Your task to perform on an android device: turn on the 24-hour format for clock Image 0: 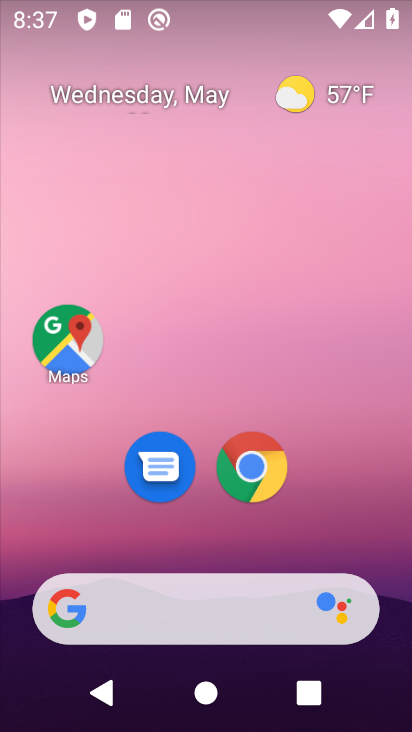
Step 0: drag from (394, 559) to (284, 211)
Your task to perform on an android device: turn on the 24-hour format for clock Image 1: 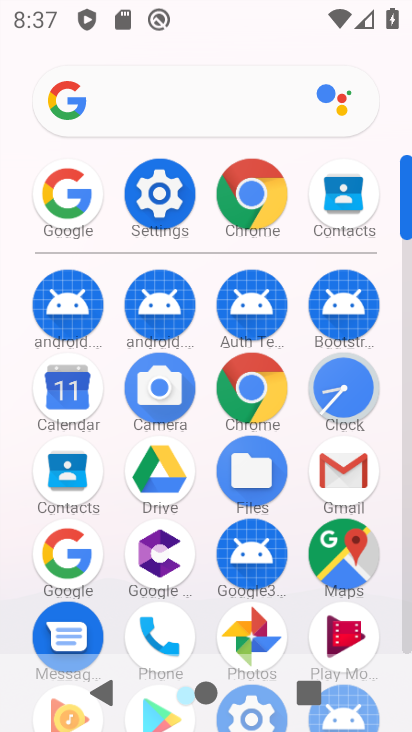
Step 1: click (332, 391)
Your task to perform on an android device: turn on the 24-hour format for clock Image 2: 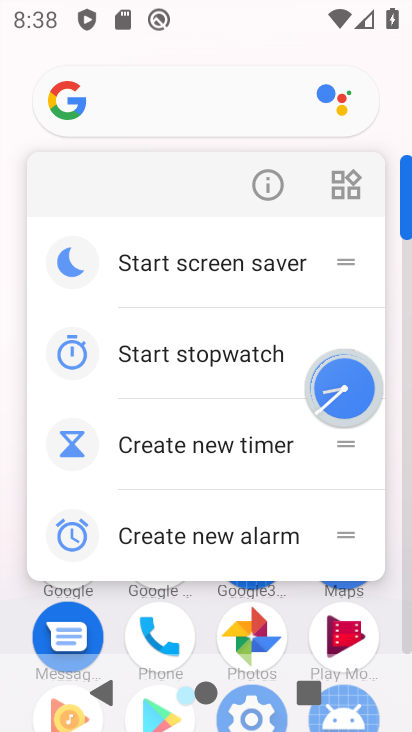
Step 2: click (339, 387)
Your task to perform on an android device: turn on the 24-hour format for clock Image 3: 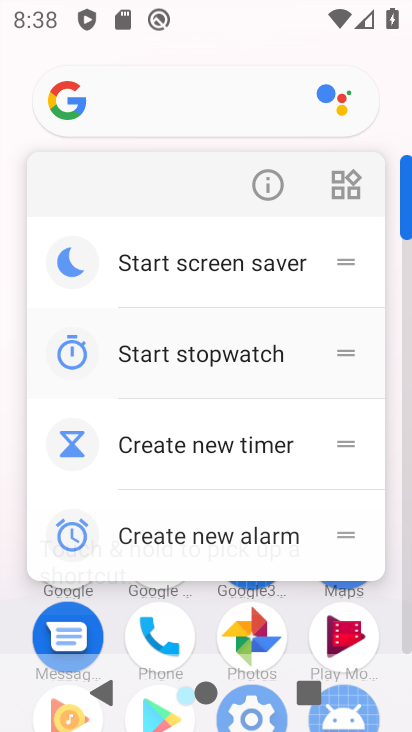
Step 3: click (339, 387)
Your task to perform on an android device: turn on the 24-hour format for clock Image 4: 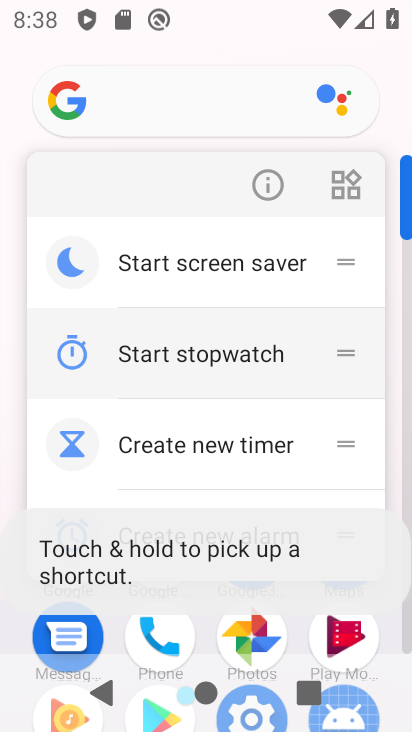
Step 4: click (339, 386)
Your task to perform on an android device: turn on the 24-hour format for clock Image 5: 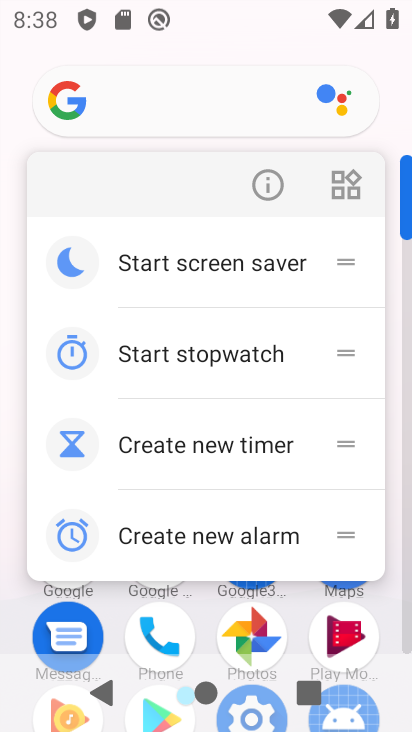
Step 5: click (204, 367)
Your task to perform on an android device: turn on the 24-hour format for clock Image 6: 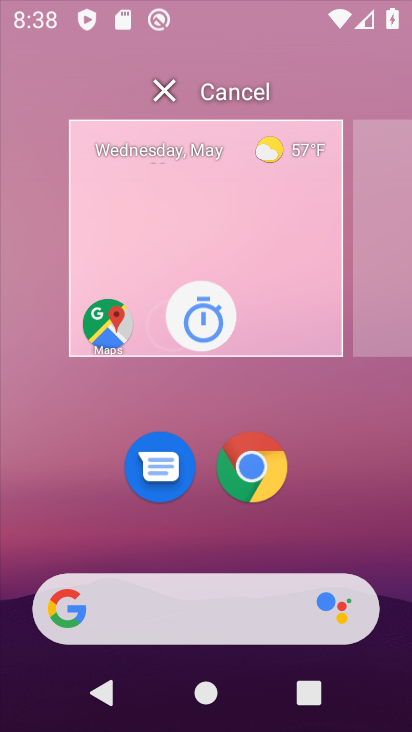
Step 6: click (200, 341)
Your task to perform on an android device: turn on the 24-hour format for clock Image 7: 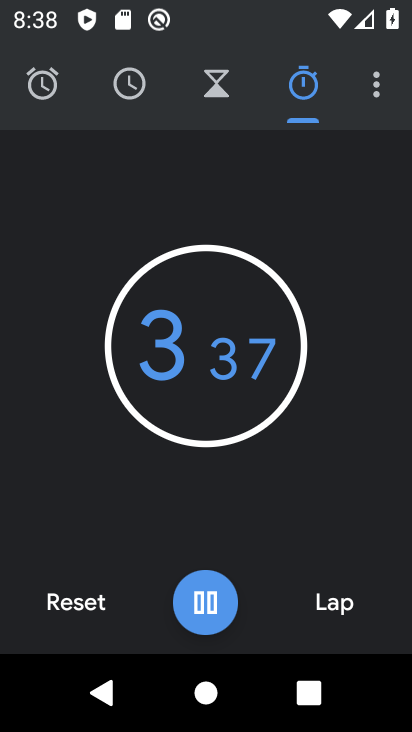
Step 7: click (208, 596)
Your task to perform on an android device: turn on the 24-hour format for clock Image 8: 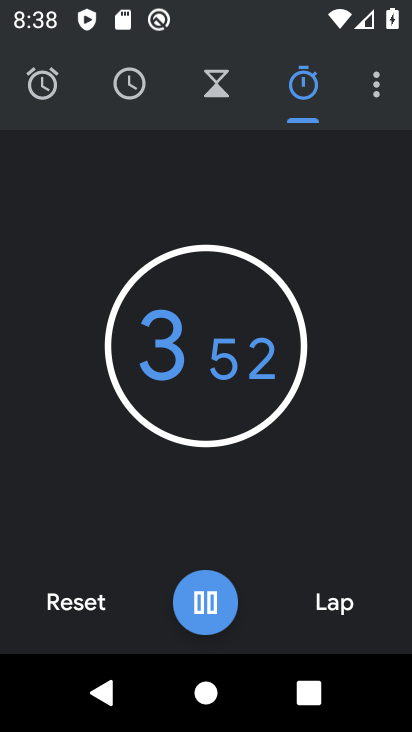
Step 8: click (209, 585)
Your task to perform on an android device: turn on the 24-hour format for clock Image 9: 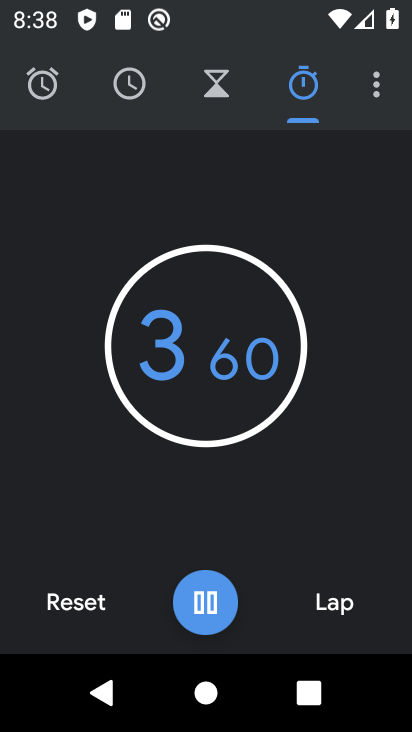
Step 9: click (209, 585)
Your task to perform on an android device: turn on the 24-hour format for clock Image 10: 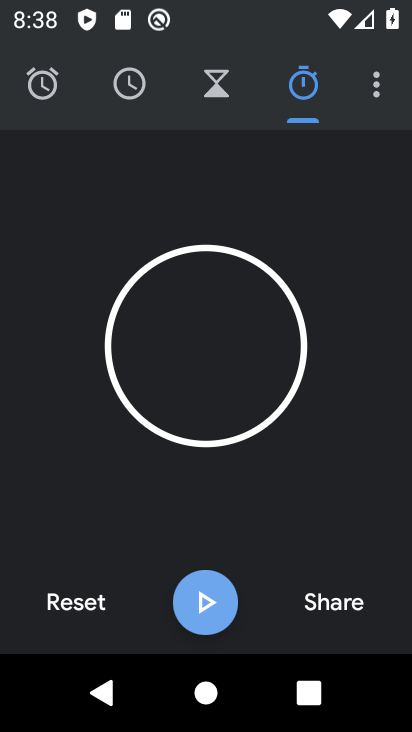
Step 10: click (198, 596)
Your task to perform on an android device: turn on the 24-hour format for clock Image 11: 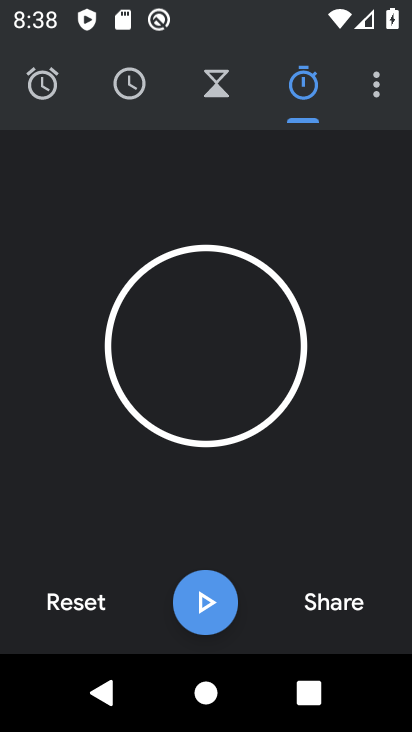
Step 11: click (203, 597)
Your task to perform on an android device: turn on the 24-hour format for clock Image 12: 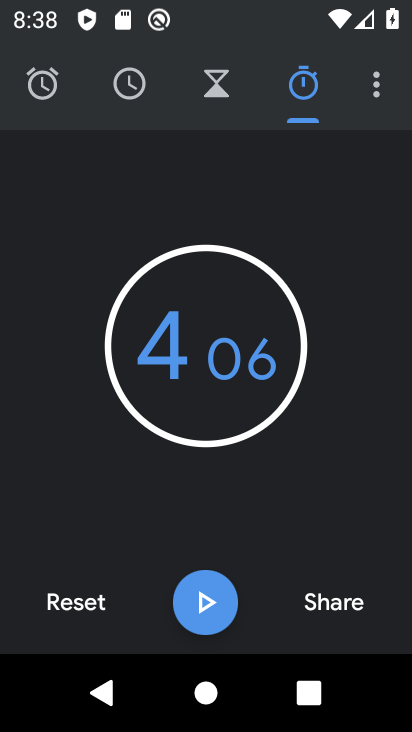
Step 12: click (370, 82)
Your task to perform on an android device: turn on the 24-hour format for clock Image 13: 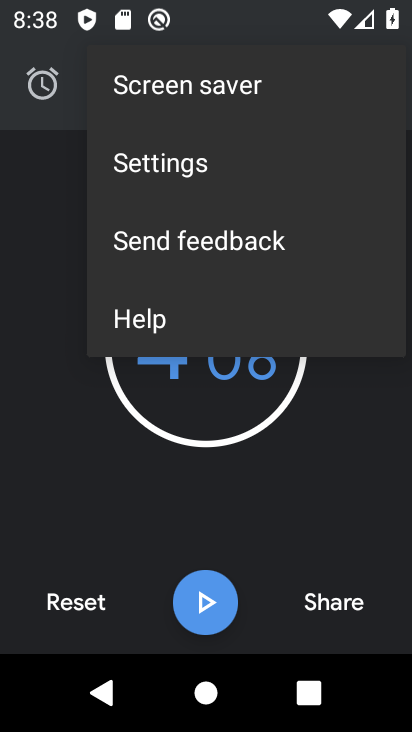
Step 13: click (167, 184)
Your task to perform on an android device: turn on the 24-hour format for clock Image 14: 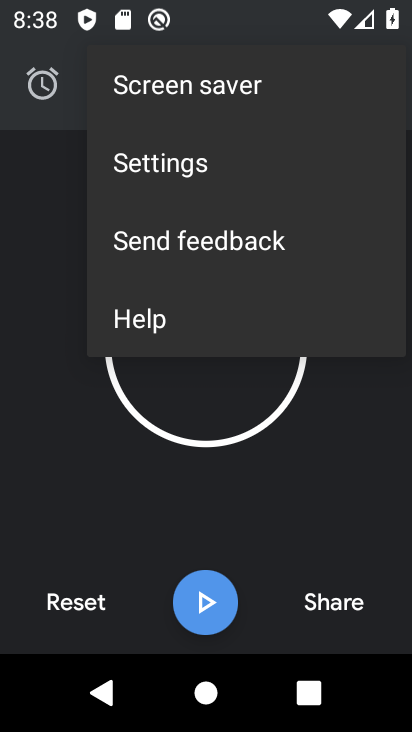
Step 14: click (162, 165)
Your task to perform on an android device: turn on the 24-hour format for clock Image 15: 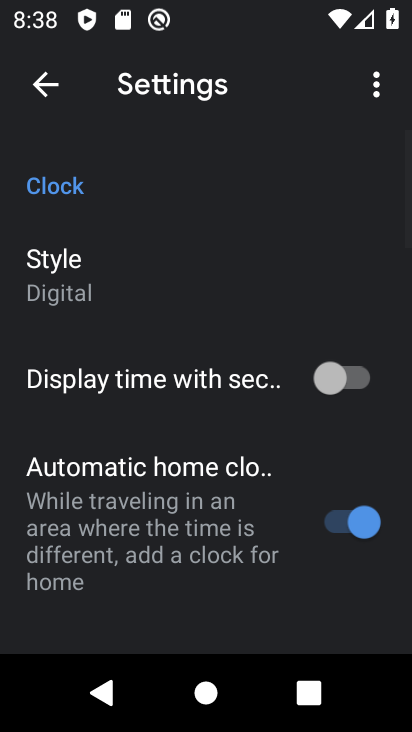
Step 15: drag from (224, 565) to (82, 115)
Your task to perform on an android device: turn on the 24-hour format for clock Image 16: 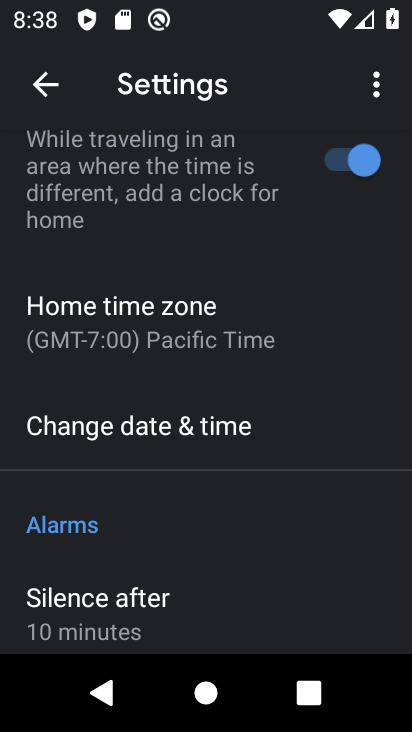
Step 16: click (175, 423)
Your task to perform on an android device: turn on the 24-hour format for clock Image 17: 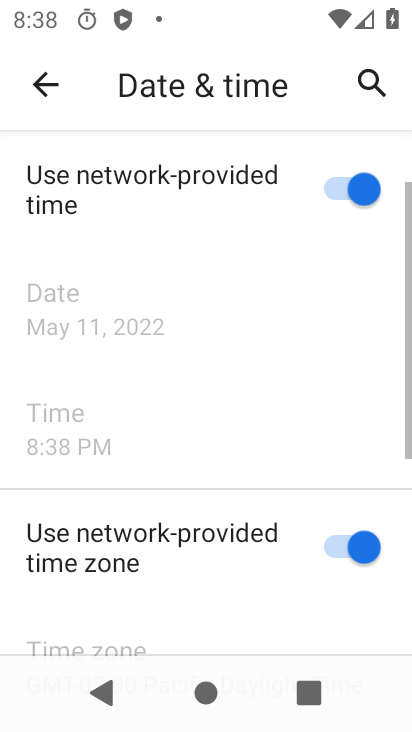
Step 17: drag from (233, 539) to (184, 240)
Your task to perform on an android device: turn on the 24-hour format for clock Image 18: 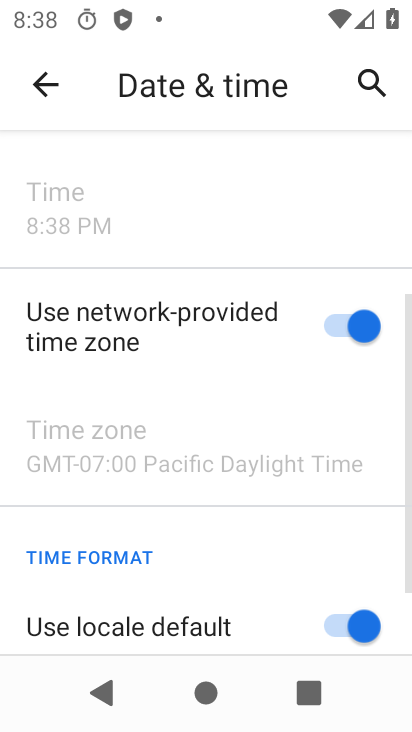
Step 18: drag from (269, 412) to (210, 201)
Your task to perform on an android device: turn on the 24-hour format for clock Image 19: 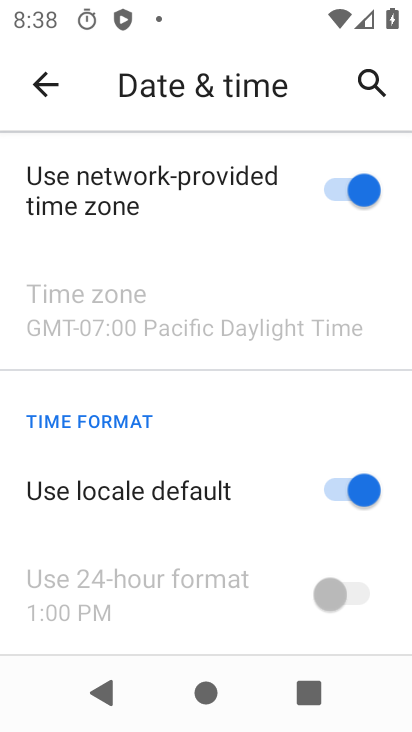
Step 19: drag from (262, 463) to (193, 168)
Your task to perform on an android device: turn on the 24-hour format for clock Image 20: 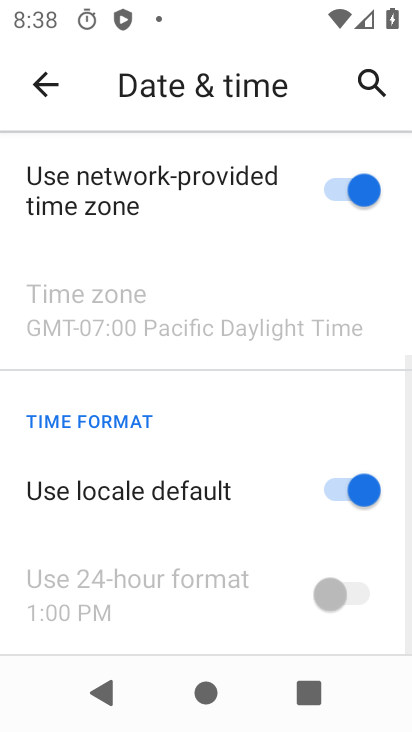
Step 20: click (362, 492)
Your task to perform on an android device: turn on the 24-hour format for clock Image 21: 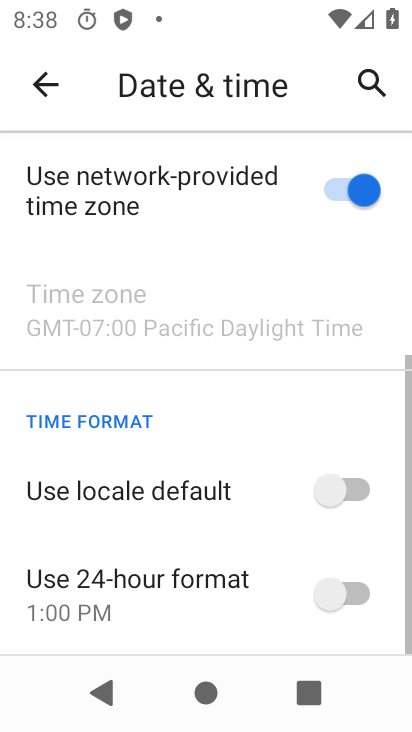
Step 21: click (337, 599)
Your task to perform on an android device: turn on the 24-hour format for clock Image 22: 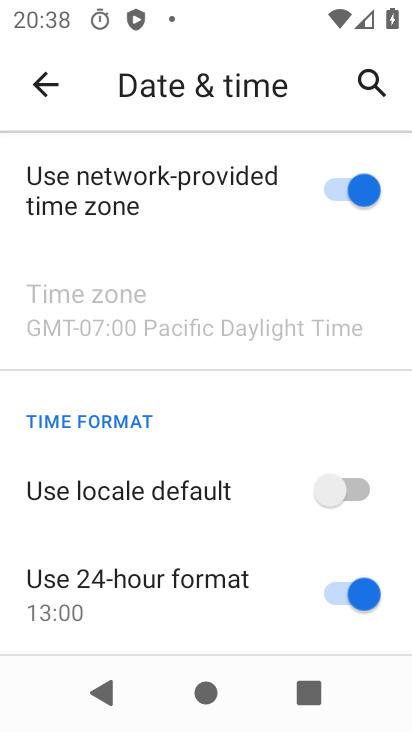
Step 22: task complete